Your task to perform on an android device: Open Yahoo.com Image 0: 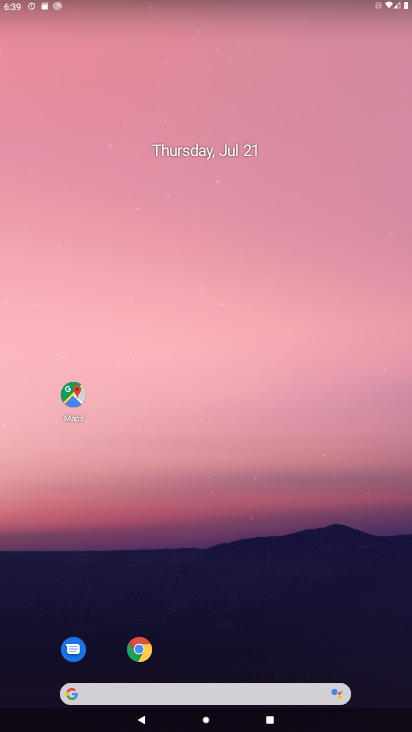
Step 0: drag from (330, 637) to (171, 40)
Your task to perform on an android device: Open Yahoo.com Image 1: 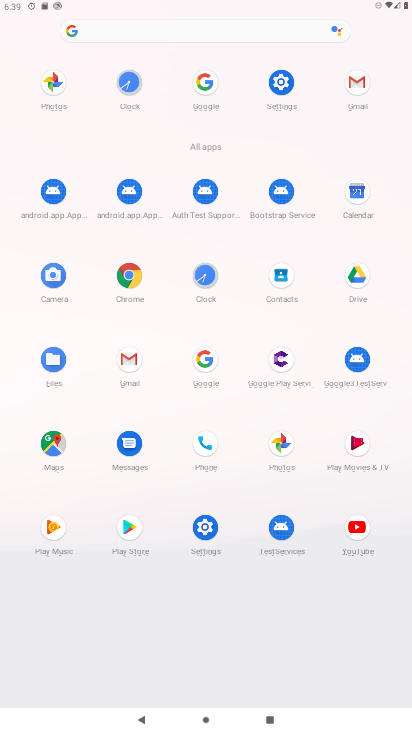
Step 1: click (207, 364)
Your task to perform on an android device: Open Yahoo.com Image 2: 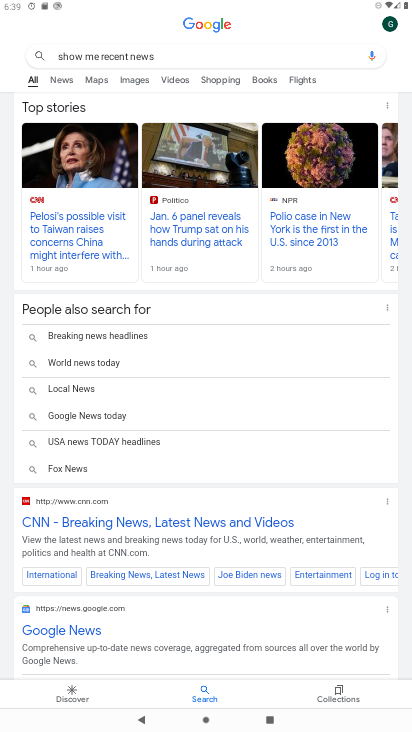
Step 2: press back button
Your task to perform on an android device: Open Yahoo.com Image 3: 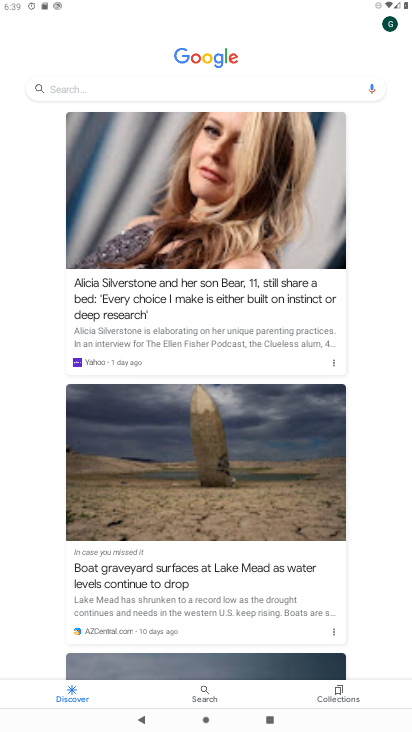
Step 3: click (86, 92)
Your task to perform on an android device: Open Yahoo.com Image 4: 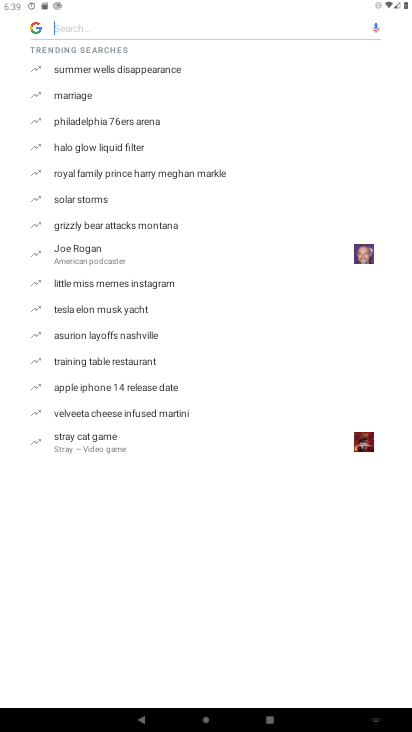
Step 4: type "Yahoo.com"
Your task to perform on an android device: Open Yahoo.com Image 5: 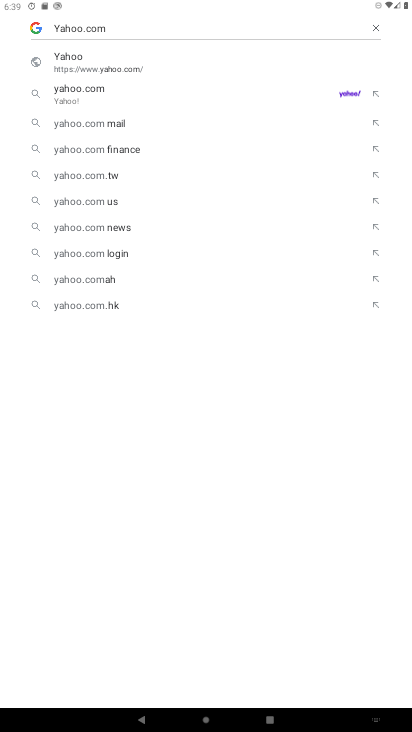
Step 5: click (98, 87)
Your task to perform on an android device: Open Yahoo.com Image 6: 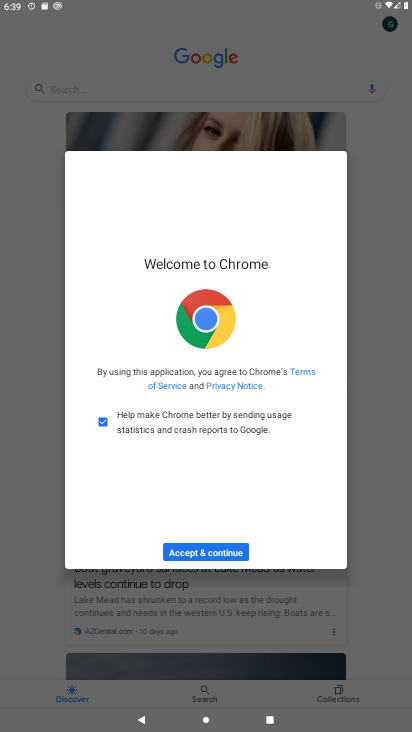
Step 6: click (199, 551)
Your task to perform on an android device: Open Yahoo.com Image 7: 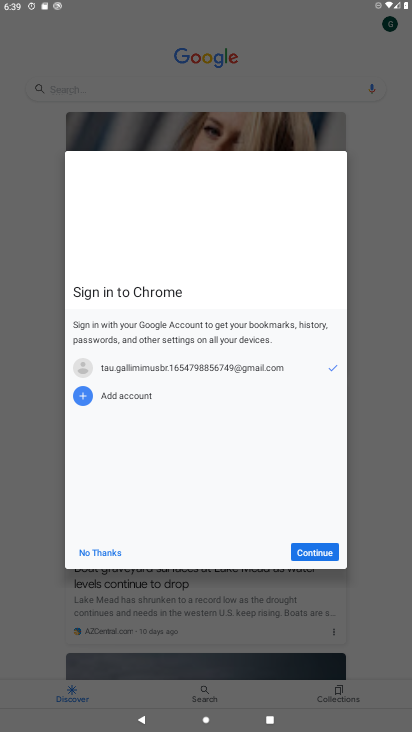
Step 7: click (295, 549)
Your task to perform on an android device: Open Yahoo.com Image 8: 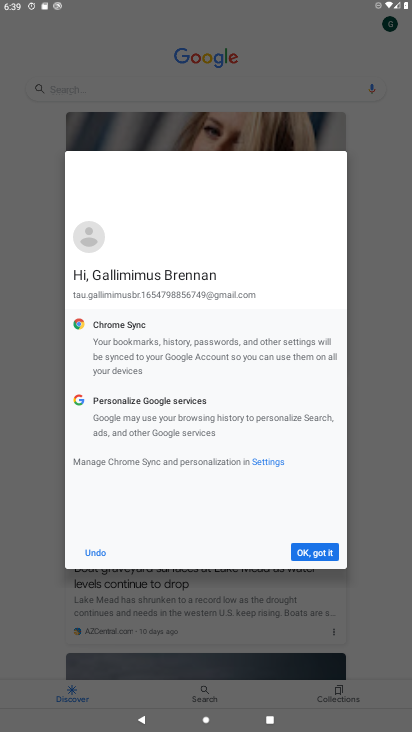
Step 8: click (311, 556)
Your task to perform on an android device: Open Yahoo.com Image 9: 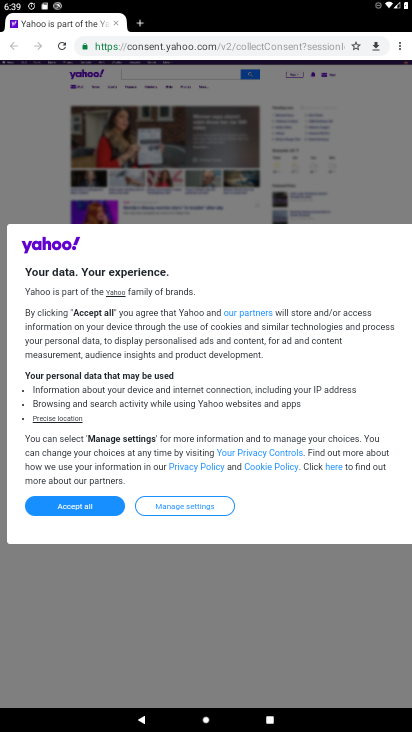
Step 9: task complete